Your task to perform on an android device: Open Google Chrome and open the bookmarks view Image 0: 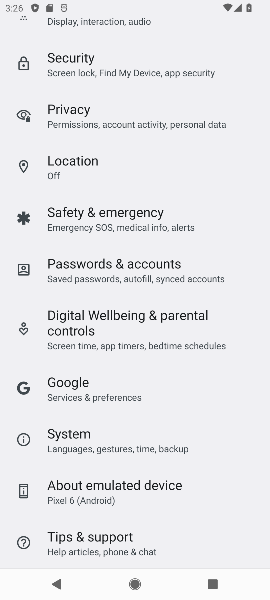
Step 0: press home button
Your task to perform on an android device: Open Google Chrome and open the bookmarks view Image 1: 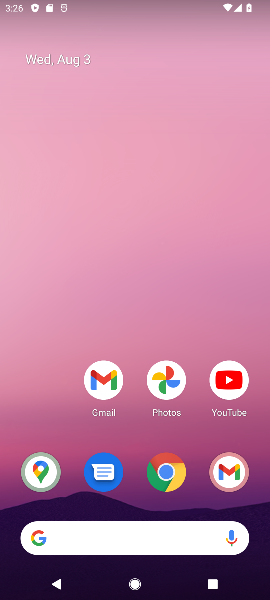
Step 1: drag from (203, 555) to (90, 75)
Your task to perform on an android device: Open Google Chrome and open the bookmarks view Image 2: 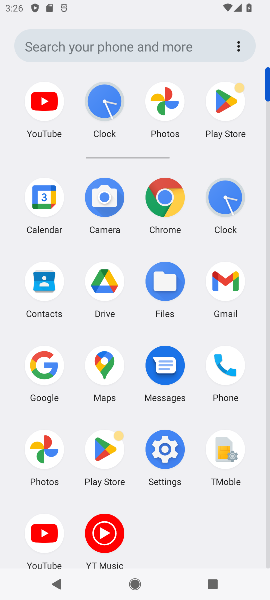
Step 2: click (173, 201)
Your task to perform on an android device: Open Google Chrome and open the bookmarks view Image 3: 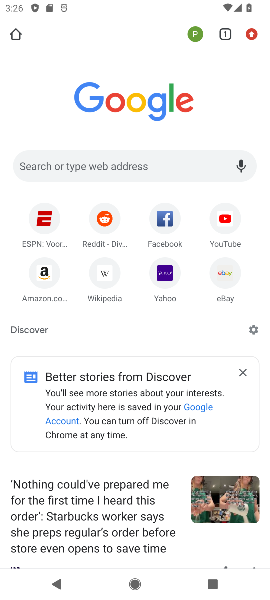
Step 3: click (251, 30)
Your task to perform on an android device: Open Google Chrome and open the bookmarks view Image 4: 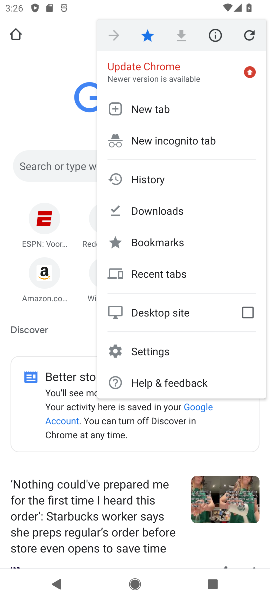
Step 4: click (157, 248)
Your task to perform on an android device: Open Google Chrome and open the bookmarks view Image 5: 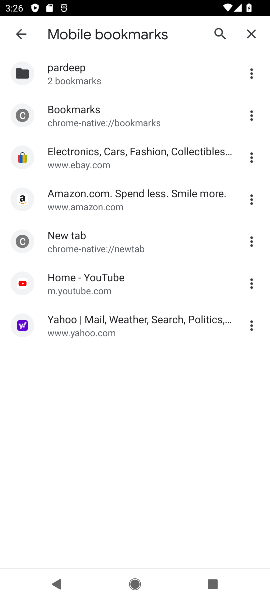
Step 5: task complete